Your task to perform on an android device: Play the last video I watched on Youtube Image 0: 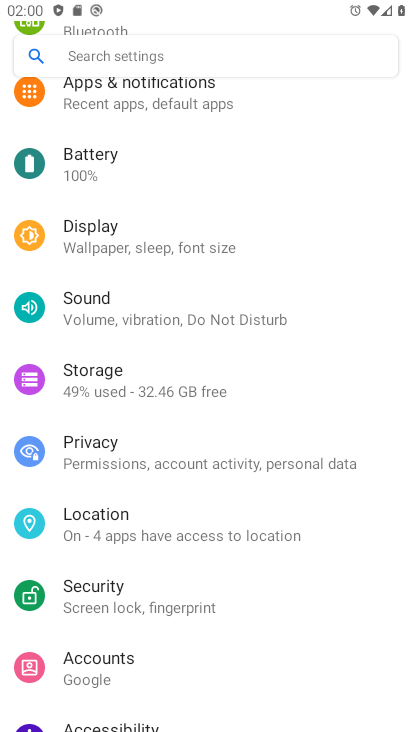
Step 0: press home button
Your task to perform on an android device: Play the last video I watched on Youtube Image 1: 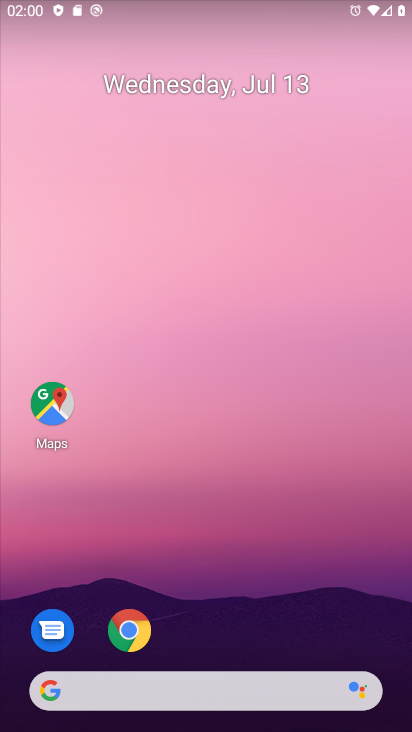
Step 1: drag from (206, 639) to (180, 246)
Your task to perform on an android device: Play the last video I watched on Youtube Image 2: 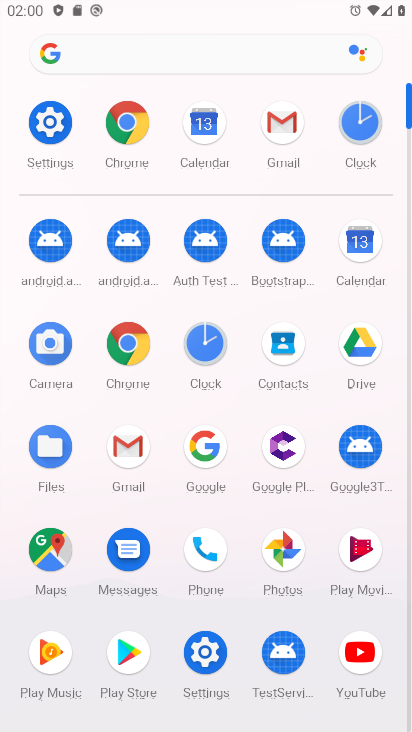
Step 2: click (360, 643)
Your task to perform on an android device: Play the last video I watched on Youtube Image 3: 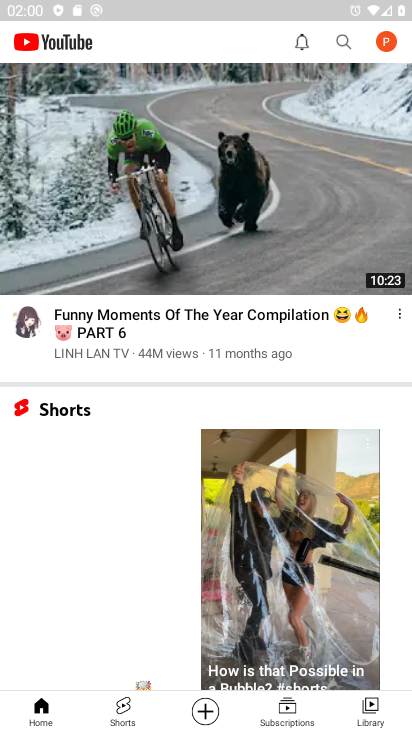
Step 3: click (332, 44)
Your task to perform on an android device: Play the last video I watched on Youtube Image 4: 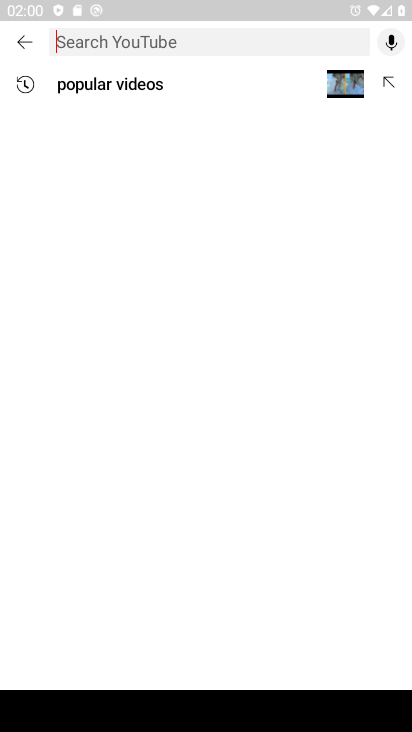
Step 4: click (23, 42)
Your task to perform on an android device: Play the last video I watched on Youtube Image 5: 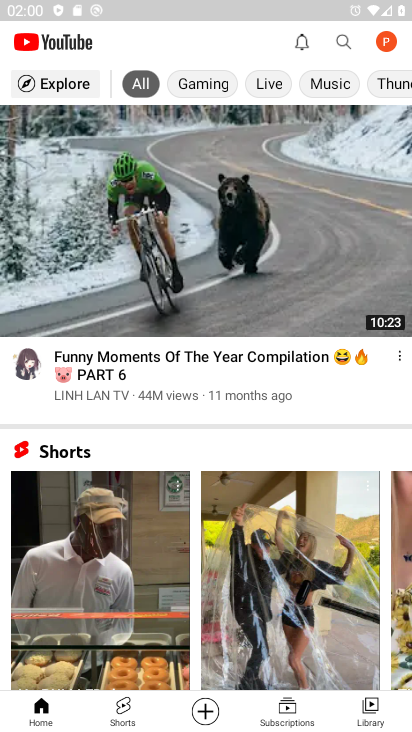
Step 5: click (375, 709)
Your task to perform on an android device: Play the last video I watched on Youtube Image 6: 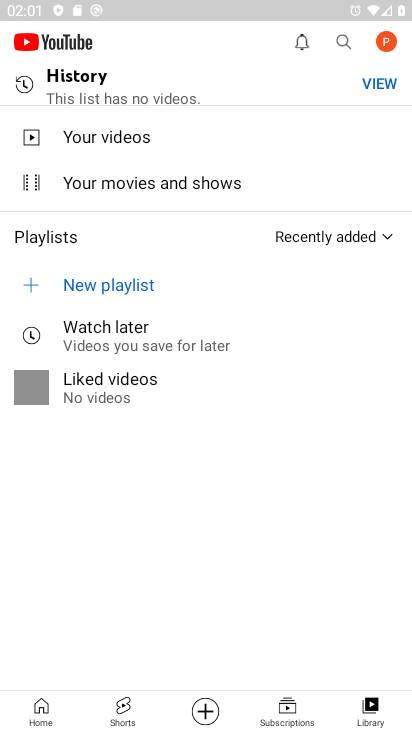
Step 6: task complete